Your task to perform on an android device: toggle data saver in the chrome app Image 0: 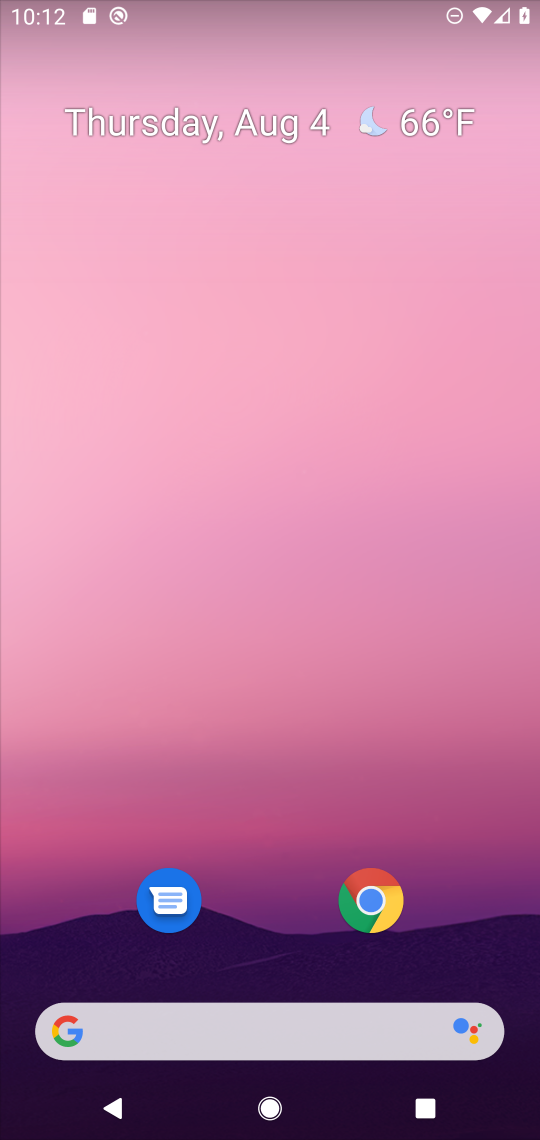
Step 0: drag from (501, 952) to (379, 131)
Your task to perform on an android device: toggle data saver in the chrome app Image 1: 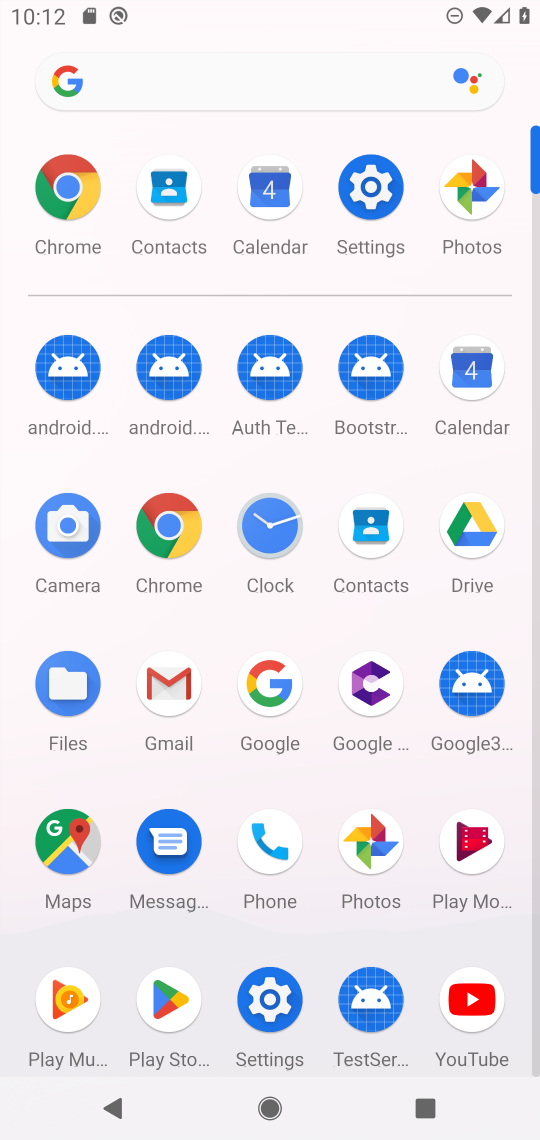
Step 1: click (60, 170)
Your task to perform on an android device: toggle data saver in the chrome app Image 2: 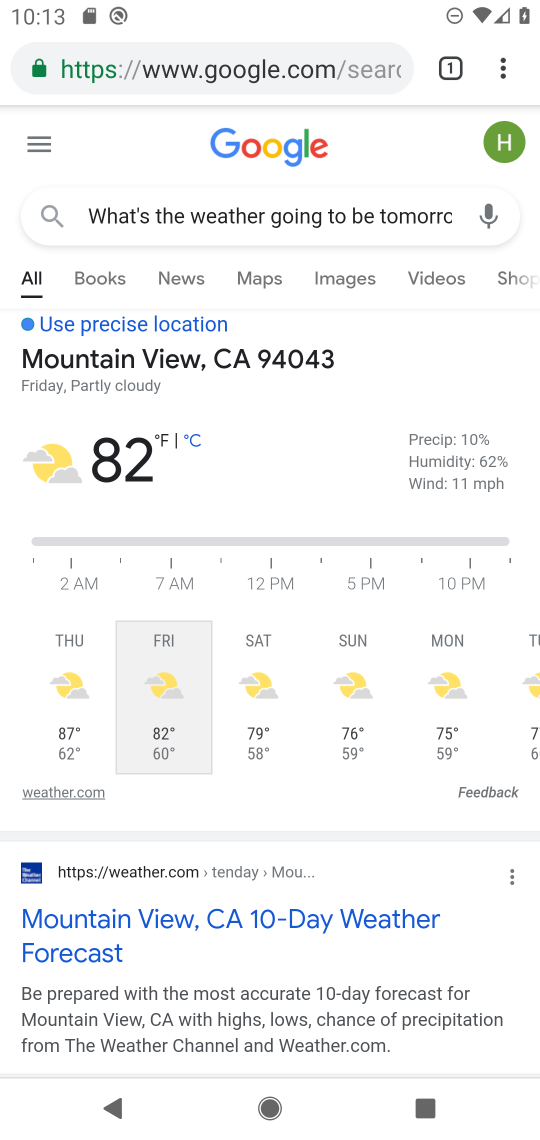
Step 2: click (511, 77)
Your task to perform on an android device: toggle data saver in the chrome app Image 3: 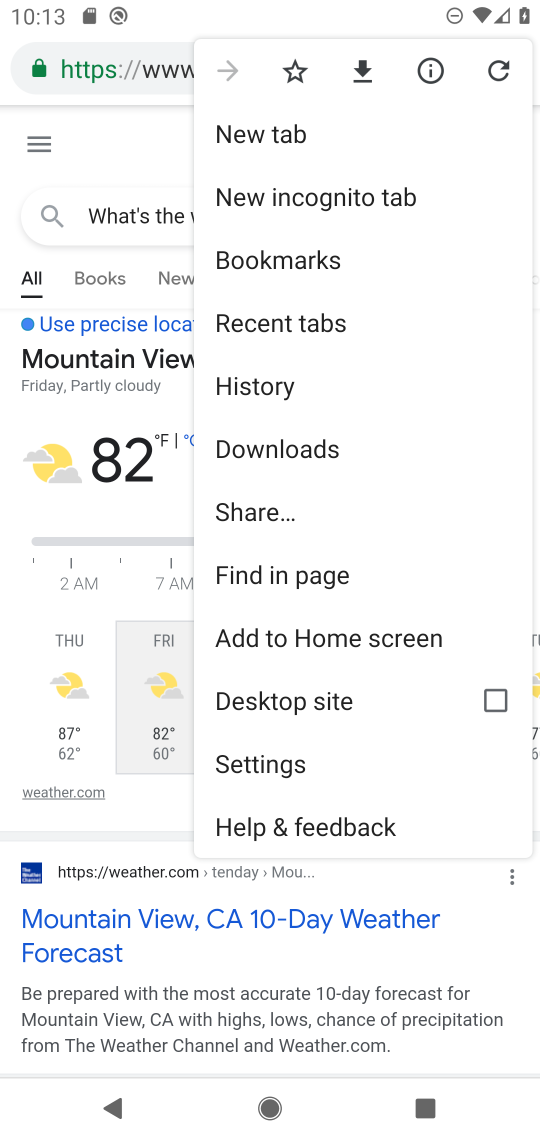
Step 3: click (376, 761)
Your task to perform on an android device: toggle data saver in the chrome app Image 4: 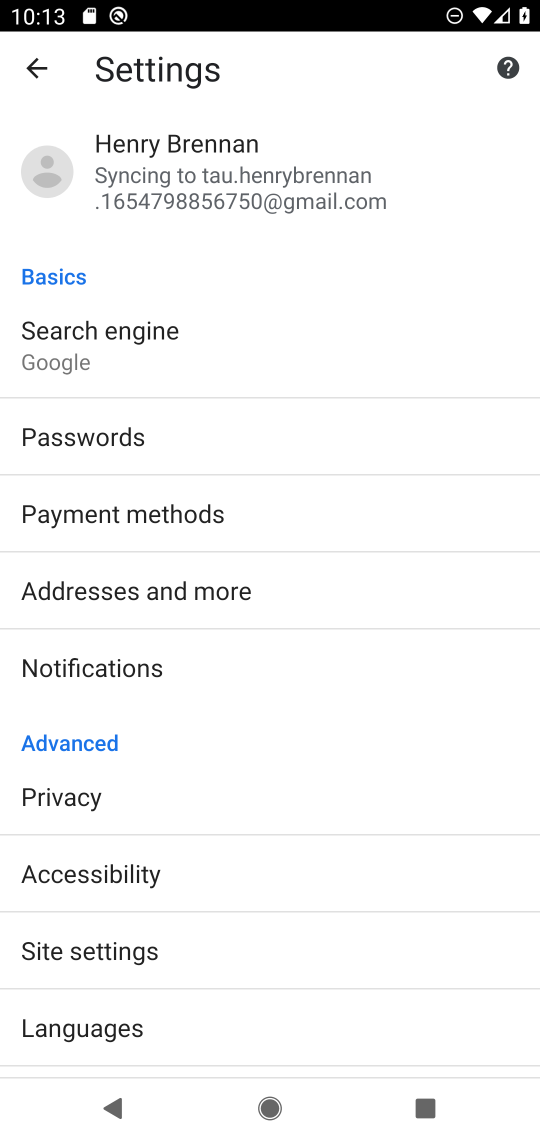
Step 4: drag from (362, 1052) to (311, 600)
Your task to perform on an android device: toggle data saver in the chrome app Image 5: 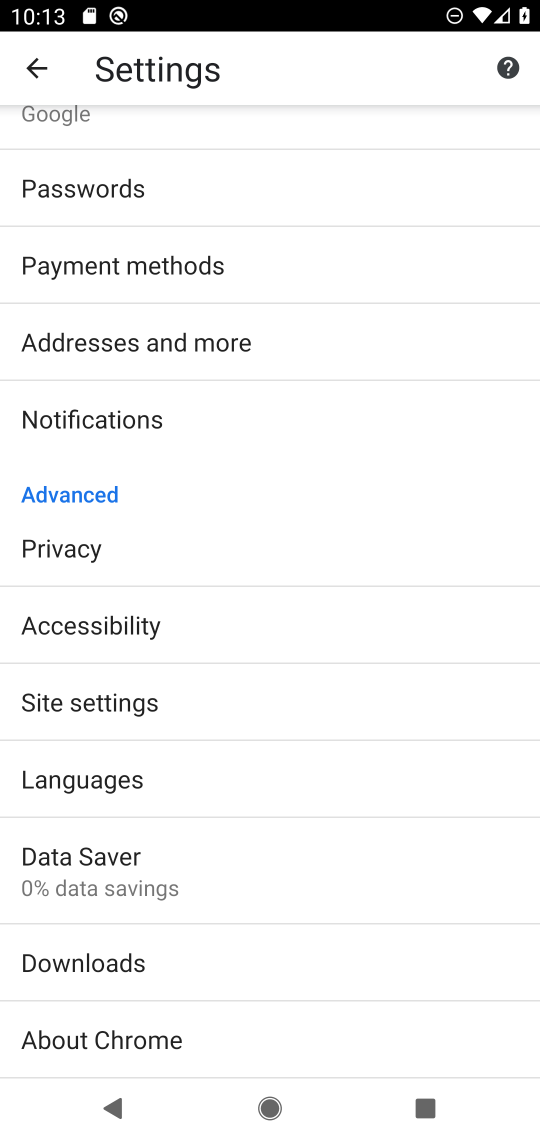
Step 5: click (310, 875)
Your task to perform on an android device: toggle data saver in the chrome app Image 6: 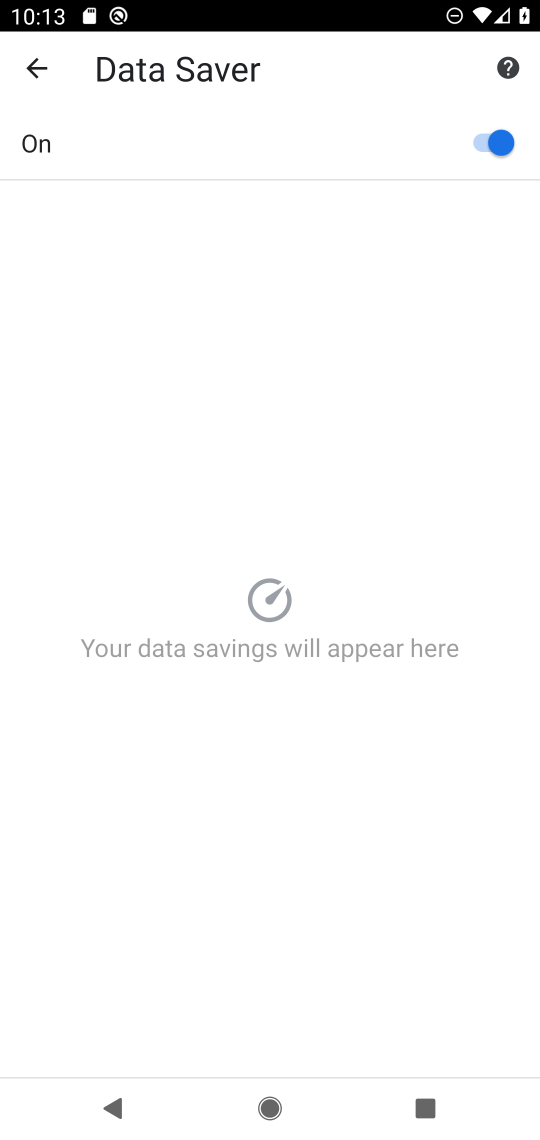
Step 6: click (480, 140)
Your task to perform on an android device: toggle data saver in the chrome app Image 7: 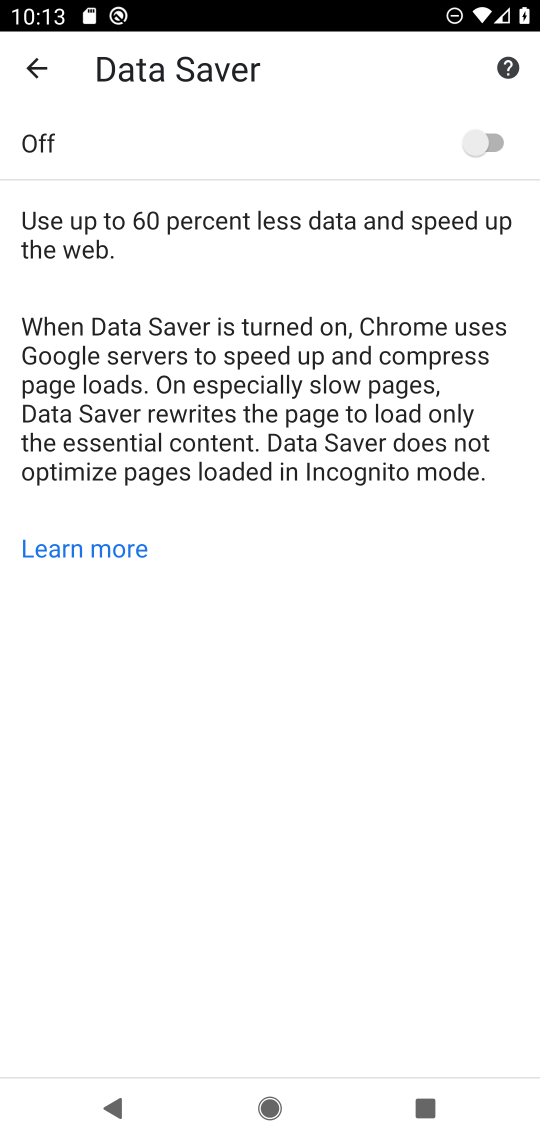
Step 7: task complete